Your task to perform on an android device: Go to wifi settings Image 0: 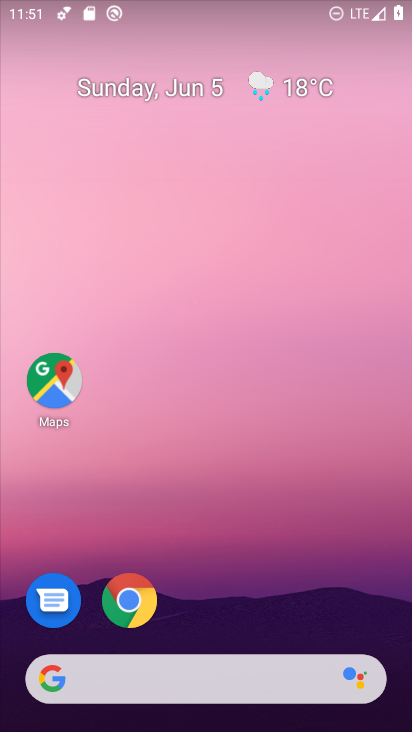
Step 0: drag from (203, 622) to (209, 239)
Your task to perform on an android device: Go to wifi settings Image 1: 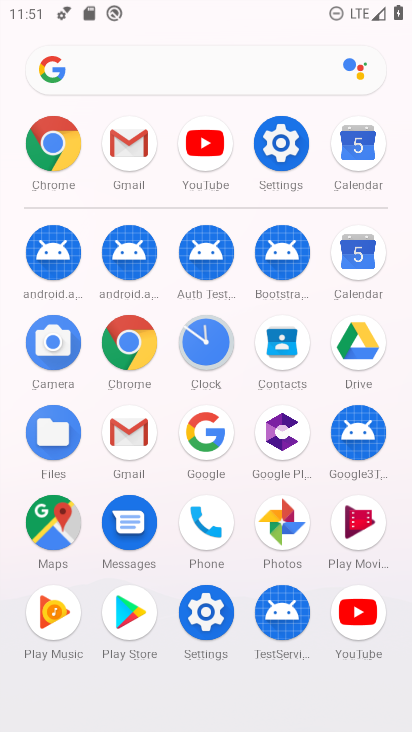
Step 1: click (279, 160)
Your task to perform on an android device: Go to wifi settings Image 2: 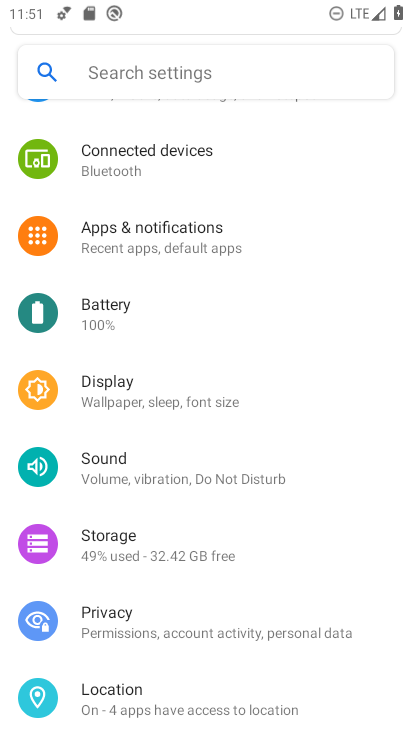
Step 2: drag from (174, 146) to (180, 352)
Your task to perform on an android device: Go to wifi settings Image 3: 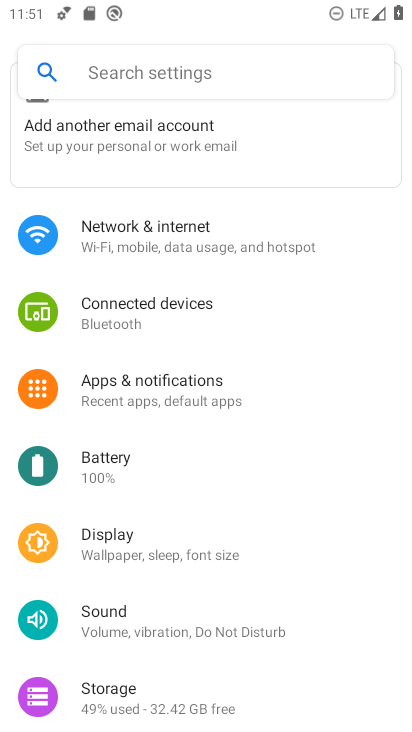
Step 3: click (144, 233)
Your task to perform on an android device: Go to wifi settings Image 4: 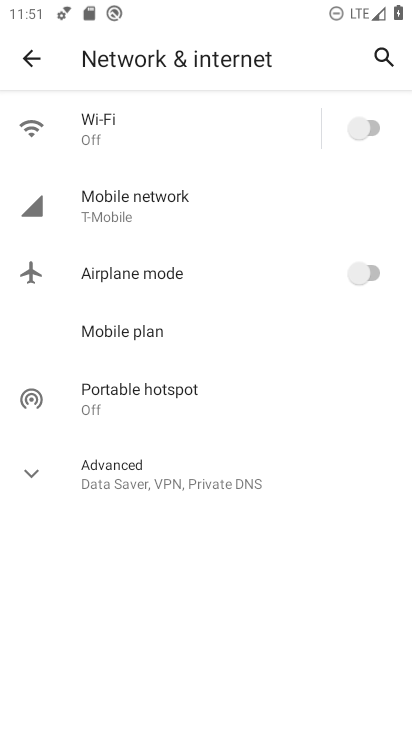
Step 4: click (200, 123)
Your task to perform on an android device: Go to wifi settings Image 5: 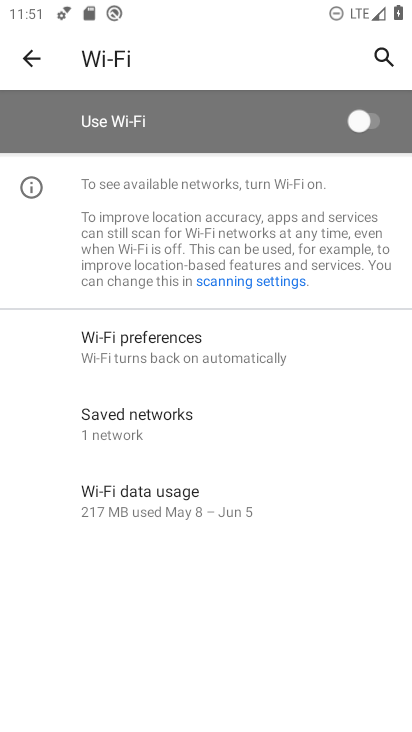
Step 5: task complete